Your task to perform on an android device: turn off location Image 0: 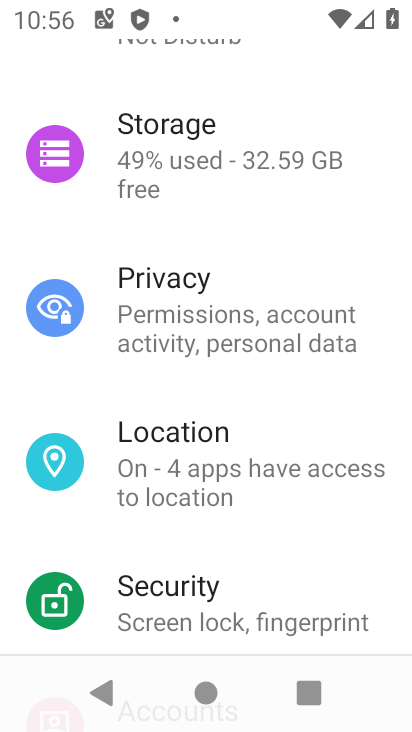
Step 0: click (208, 488)
Your task to perform on an android device: turn off location Image 1: 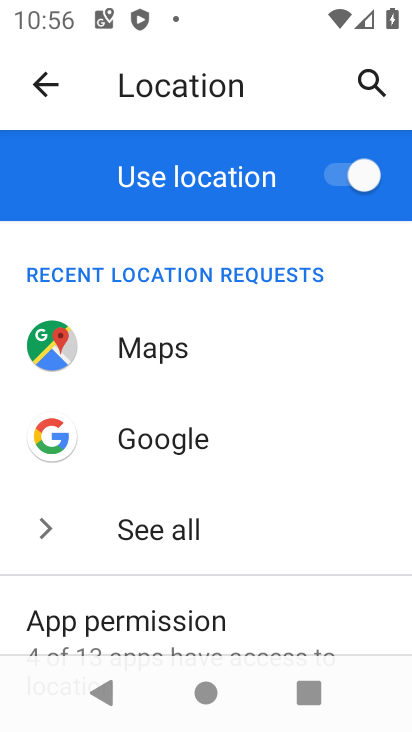
Step 1: click (344, 179)
Your task to perform on an android device: turn off location Image 2: 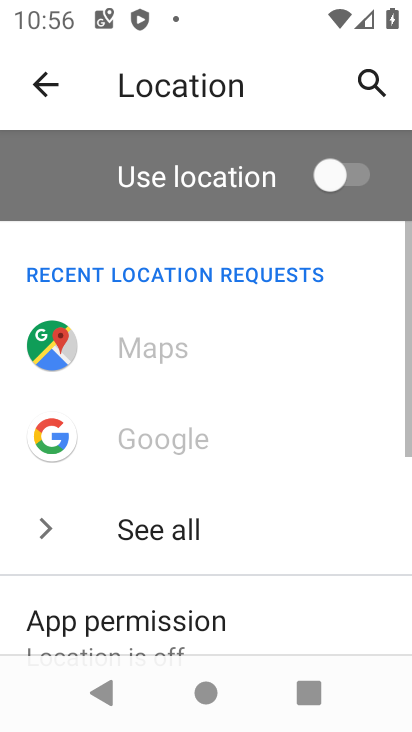
Step 2: task complete